Your task to perform on an android device: toggle data saver in the chrome app Image 0: 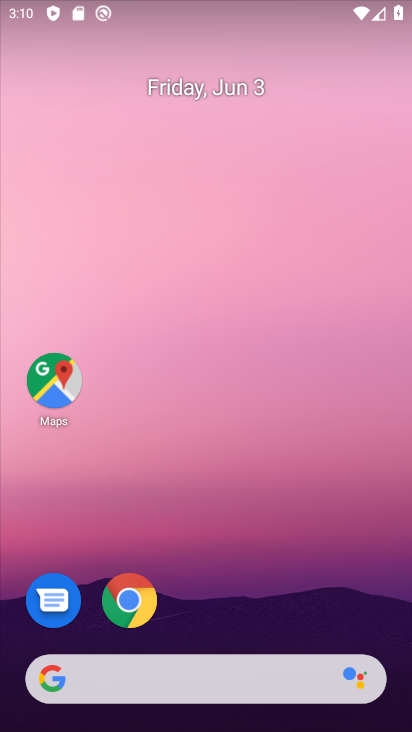
Step 0: click (141, 602)
Your task to perform on an android device: toggle data saver in the chrome app Image 1: 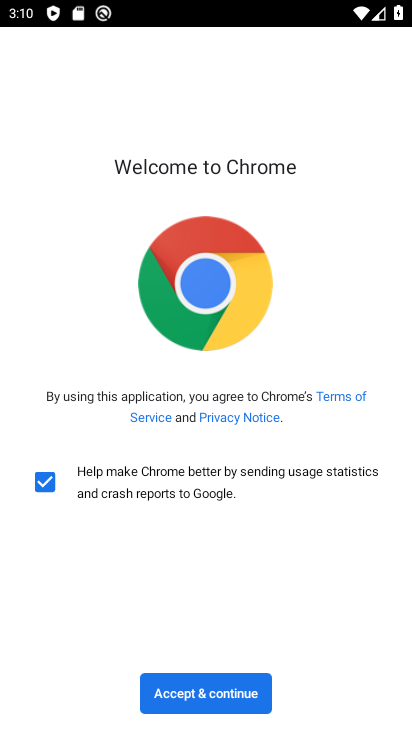
Step 1: click (251, 693)
Your task to perform on an android device: toggle data saver in the chrome app Image 2: 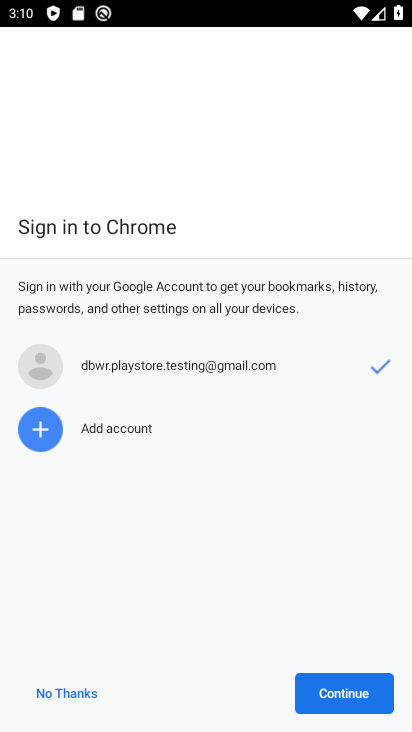
Step 2: click (337, 703)
Your task to perform on an android device: toggle data saver in the chrome app Image 3: 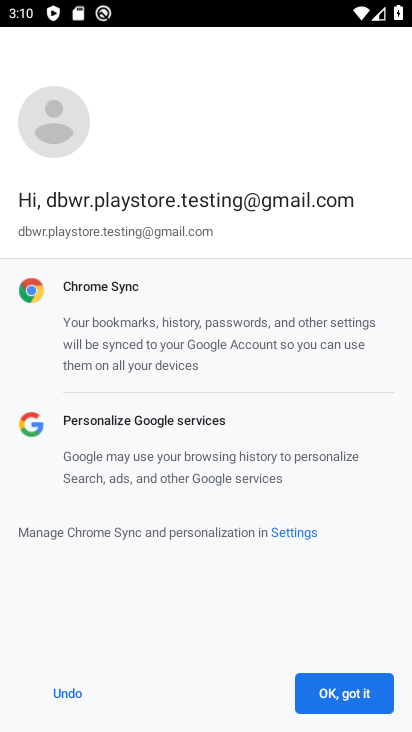
Step 3: click (336, 695)
Your task to perform on an android device: toggle data saver in the chrome app Image 4: 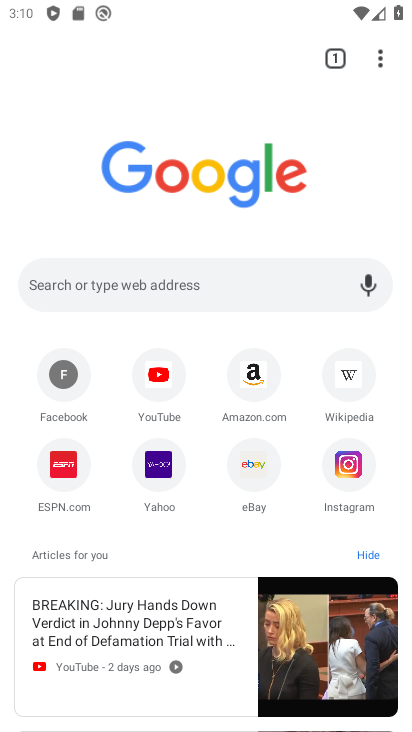
Step 4: click (372, 54)
Your task to perform on an android device: toggle data saver in the chrome app Image 5: 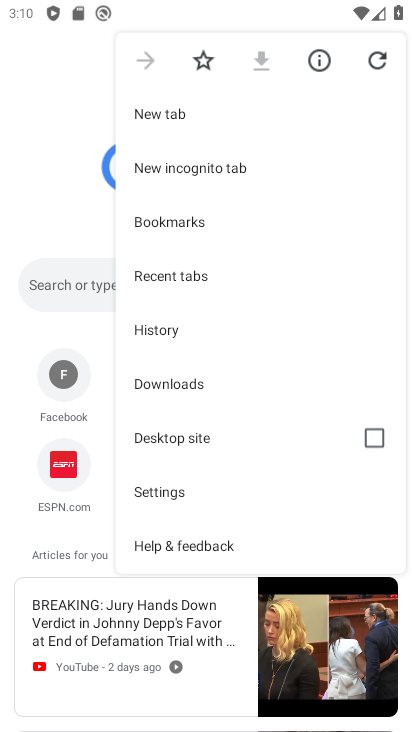
Step 5: click (146, 483)
Your task to perform on an android device: toggle data saver in the chrome app Image 6: 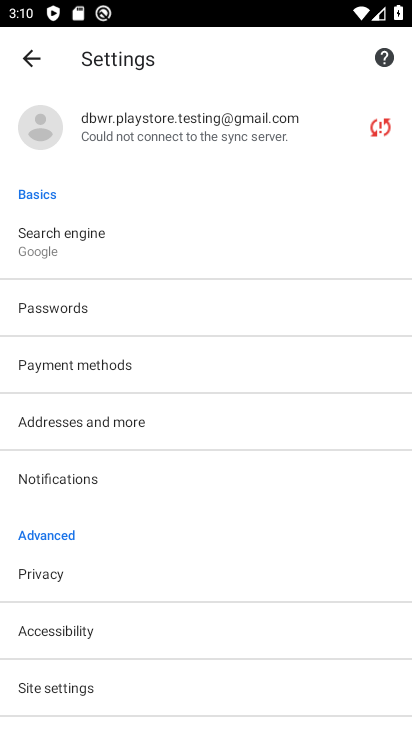
Step 6: drag from (84, 608) to (121, 389)
Your task to perform on an android device: toggle data saver in the chrome app Image 7: 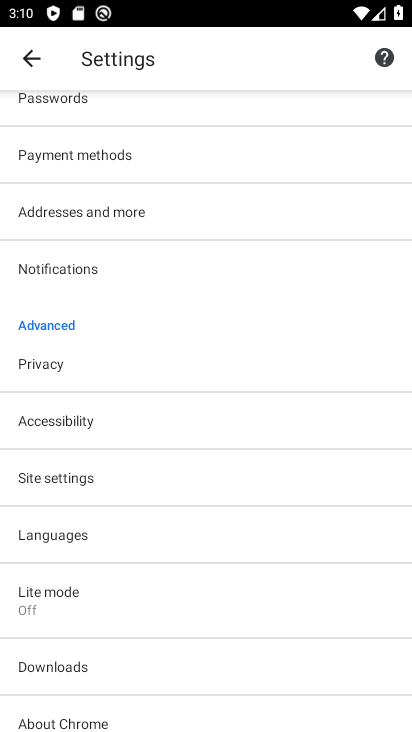
Step 7: click (63, 612)
Your task to perform on an android device: toggle data saver in the chrome app Image 8: 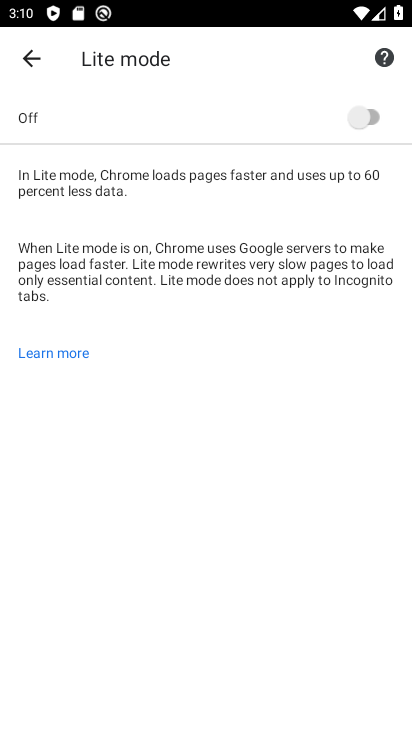
Step 8: click (370, 129)
Your task to perform on an android device: toggle data saver in the chrome app Image 9: 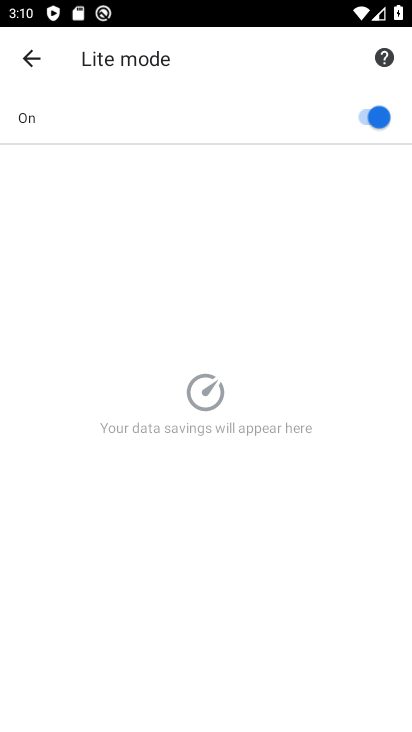
Step 9: task complete